Your task to perform on an android device: empty trash in the gmail app Image 0: 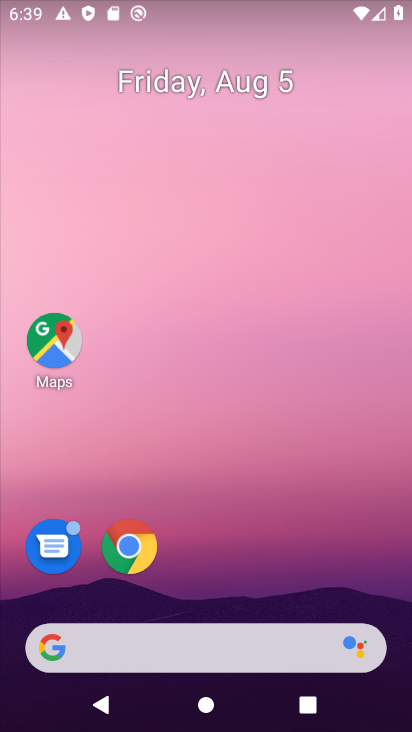
Step 0: drag from (198, 427) to (232, 177)
Your task to perform on an android device: empty trash in the gmail app Image 1: 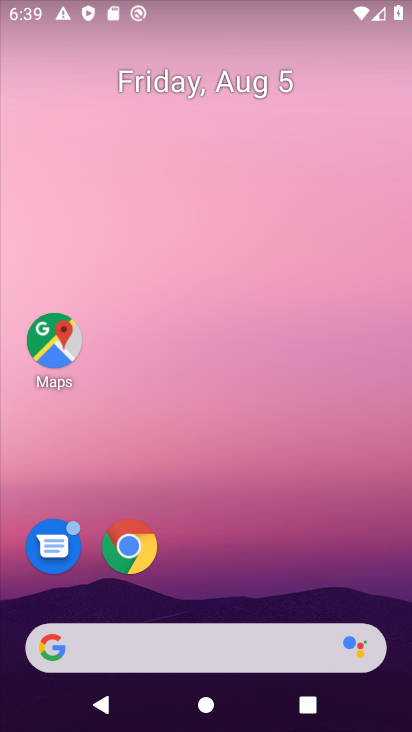
Step 1: drag from (208, 609) to (197, 230)
Your task to perform on an android device: empty trash in the gmail app Image 2: 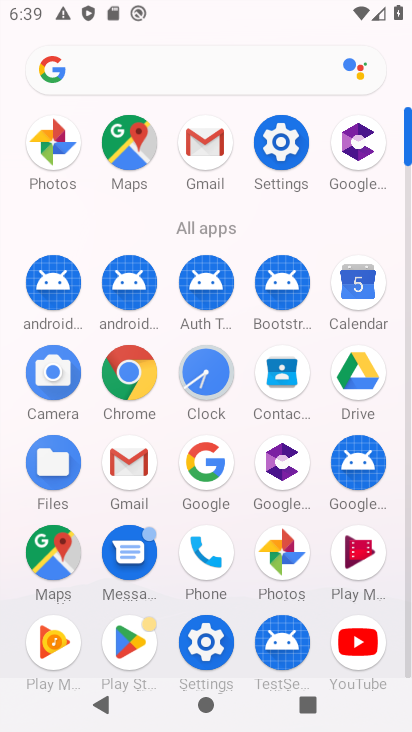
Step 2: click (142, 458)
Your task to perform on an android device: empty trash in the gmail app Image 3: 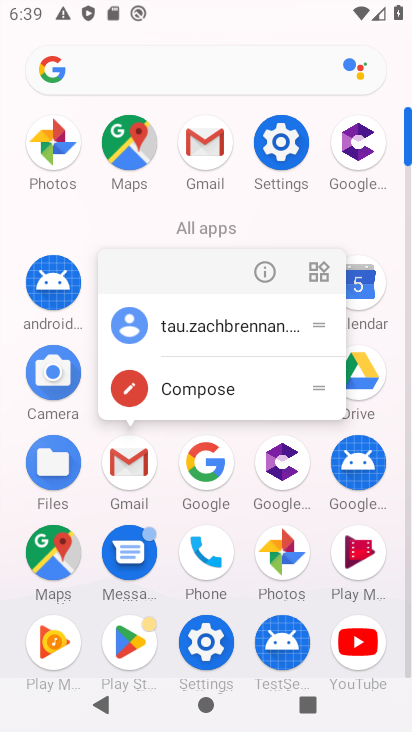
Step 3: click (261, 273)
Your task to perform on an android device: empty trash in the gmail app Image 4: 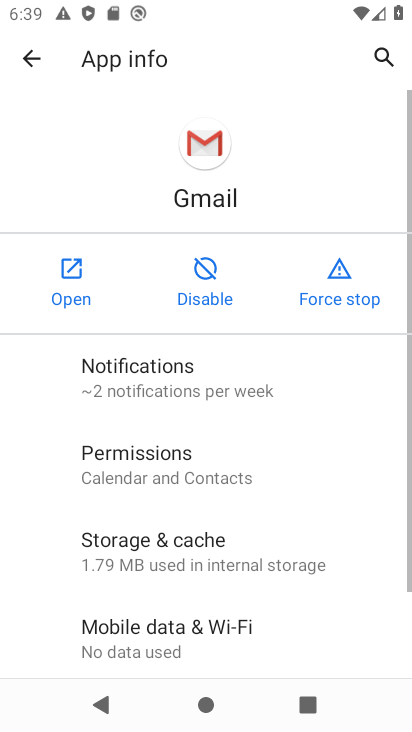
Step 4: click (77, 279)
Your task to perform on an android device: empty trash in the gmail app Image 5: 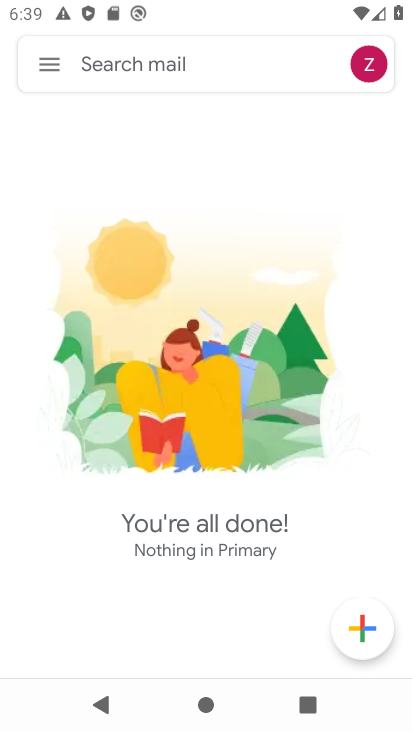
Step 5: click (55, 73)
Your task to perform on an android device: empty trash in the gmail app Image 6: 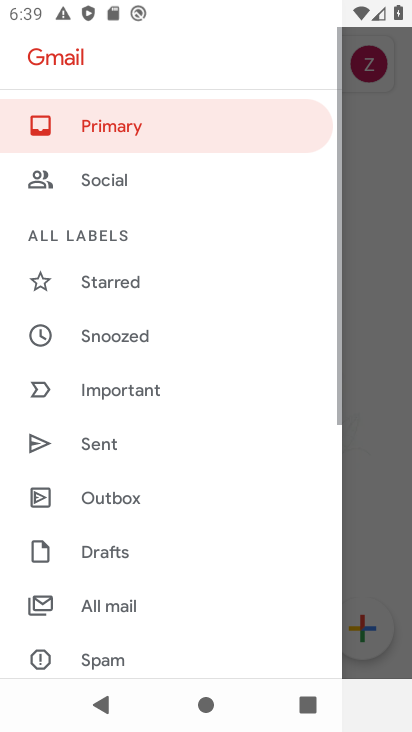
Step 6: drag from (137, 510) to (153, 138)
Your task to perform on an android device: empty trash in the gmail app Image 7: 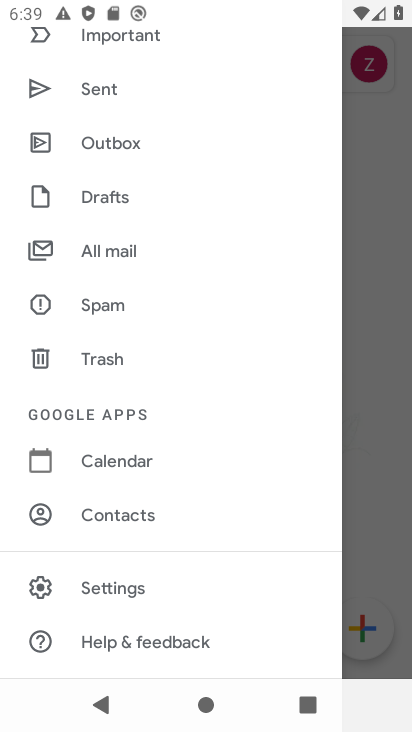
Step 7: drag from (118, 543) to (120, 234)
Your task to perform on an android device: empty trash in the gmail app Image 8: 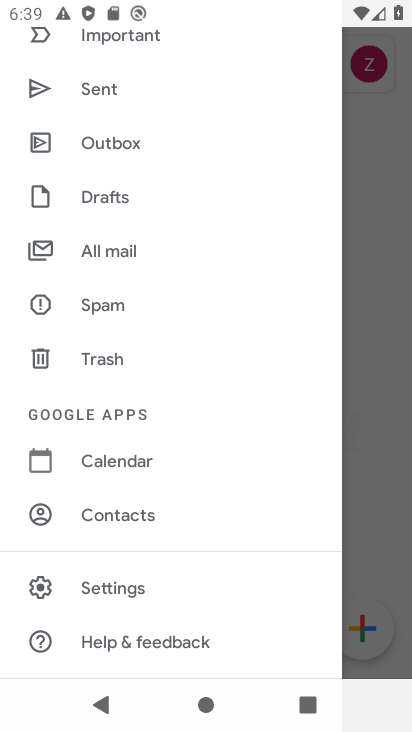
Step 8: click (114, 360)
Your task to perform on an android device: empty trash in the gmail app Image 9: 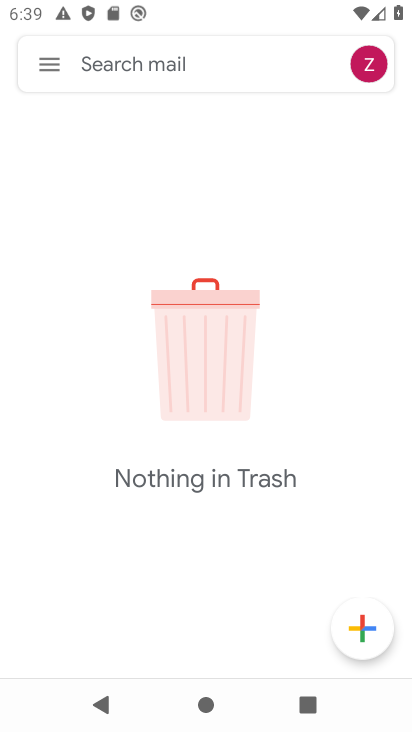
Step 9: drag from (193, 510) to (190, 284)
Your task to perform on an android device: empty trash in the gmail app Image 10: 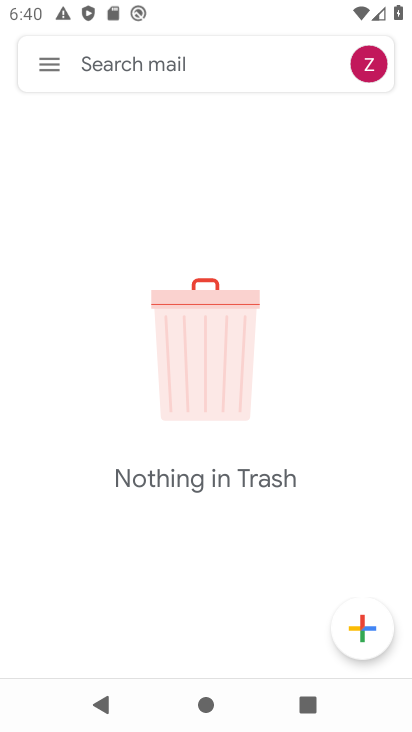
Step 10: click (53, 68)
Your task to perform on an android device: empty trash in the gmail app Image 11: 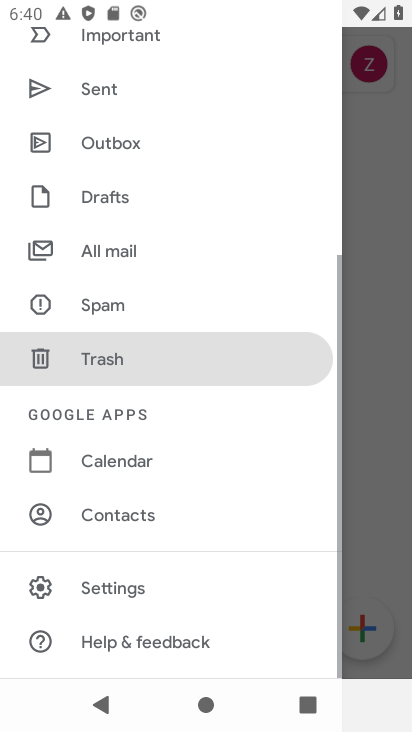
Step 11: click (140, 349)
Your task to perform on an android device: empty trash in the gmail app Image 12: 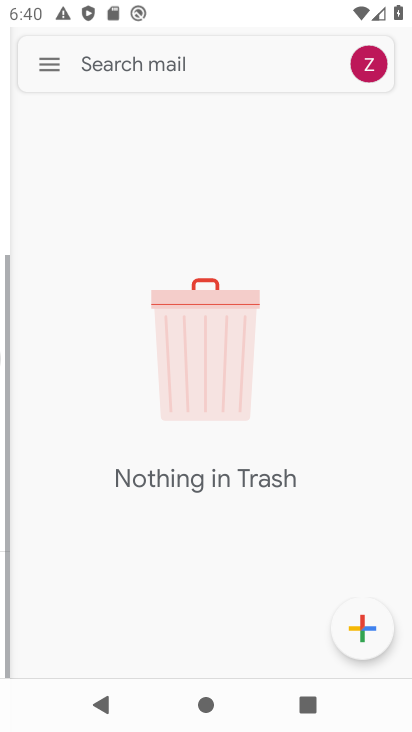
Step 12: click (351, 307)
Your task to perform on an android device: empty trash in the gmail app Image 13: 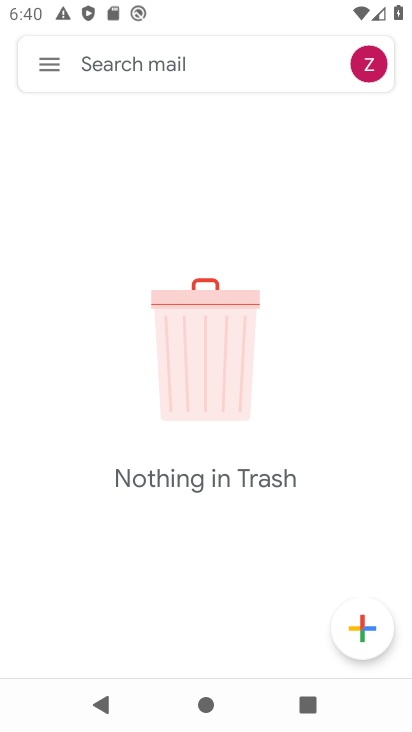
Step 13: task complete